Your task to perform on an android device: Search for sushi restaurants on Maps Image 0: 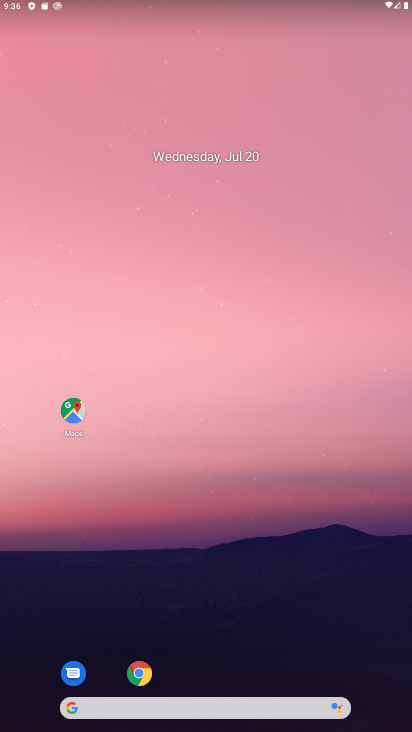
Step 0: click (72, 413)
Your task to perform on an android device: Search for sushi restaurants on Maps Image 1: 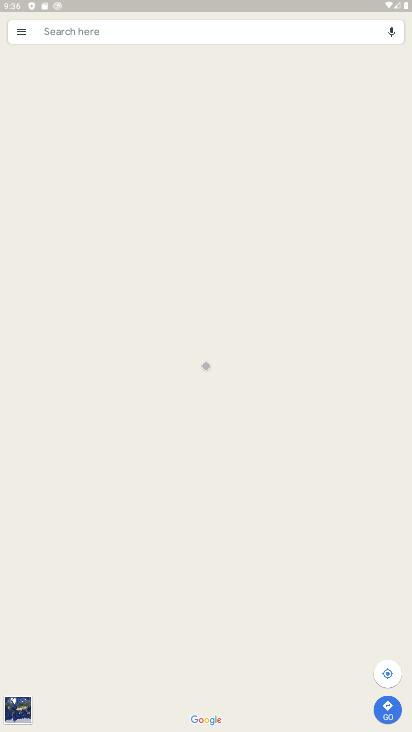
Step 1: click (193, 30)
Your task to perform on an android device: Search for sushi restaurants on Maps Image 2: 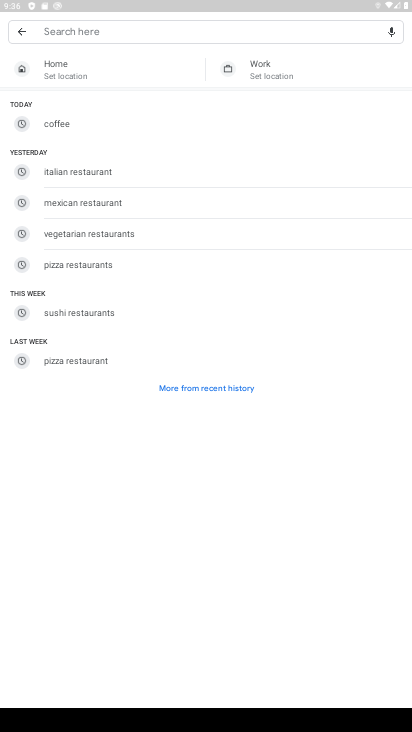
Step 2: type "sushi restaurants"
Your task to perform on an android device: Search for sushi restaurants on Maps Image 3: 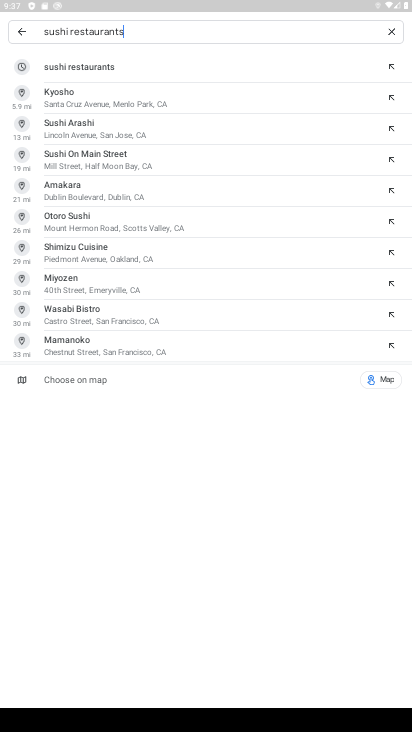
Step 3: click (57, 65)
Your task to perform on an android device: Search for sushi restaurants on Maps Image 4: 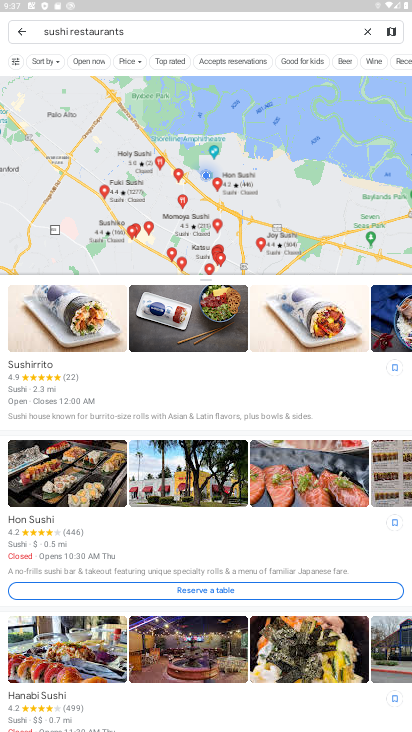
Step 4: task complete